Your task to perform on an android device: Open maps Image 0: 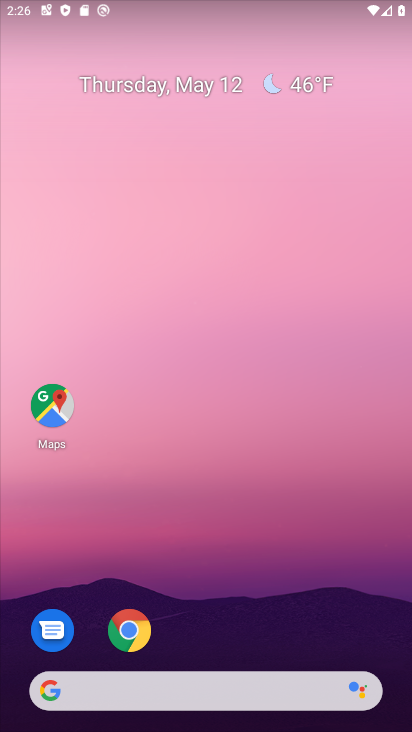
Step 0: click (51, 405)
Your task to perform on an android device: Open maps Image 1: 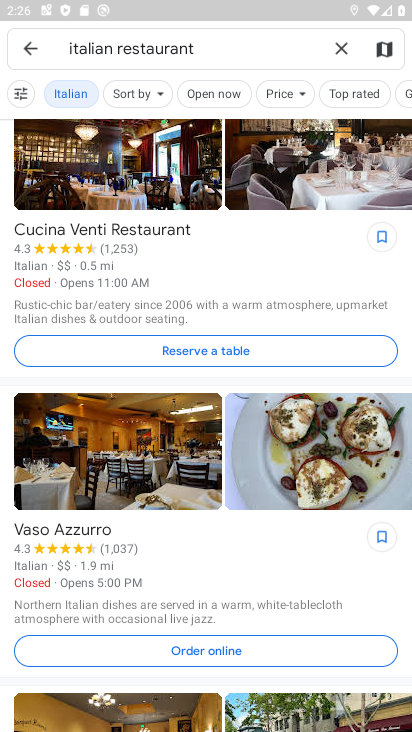
Step 1: task complete